Your task to perform on an android device: set the stopwatch Image 0: 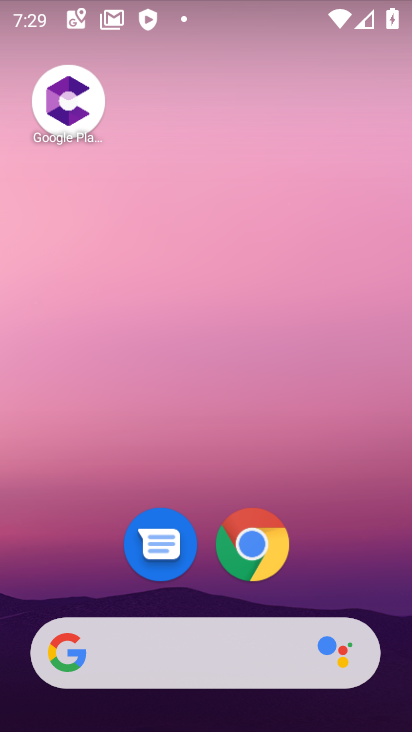
Step 0: drag from (354, 558) to (334, 5)
Your task to perform on an android device: set the stopwatch Image 1: 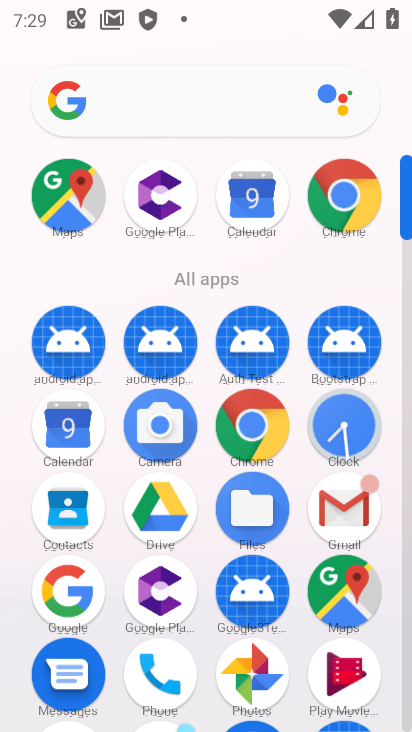
Step 1: click (335, 424)
Your task to perform on an android device: set the stopwatch Image 2: 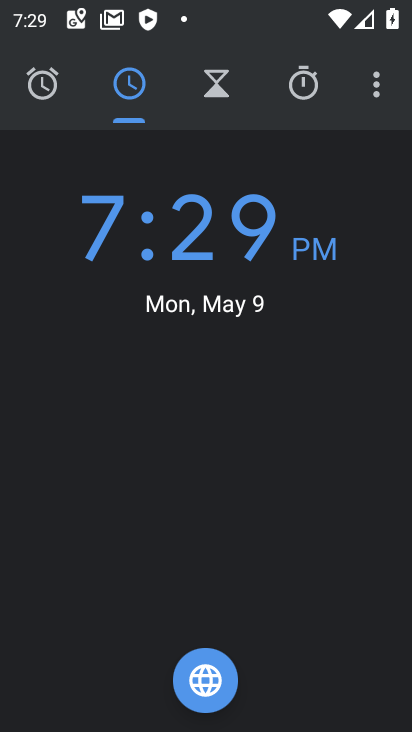
Step 2: click (312, 100)
Your task to perform on an android device: set the stopwatch Image 3: 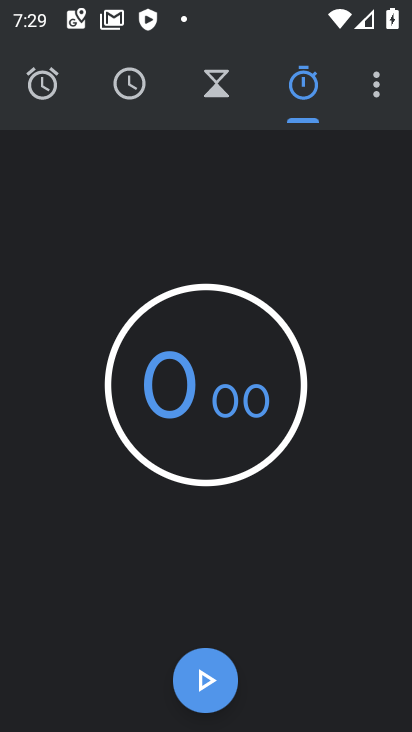
Step 3: click (200, 677)
Your task to perform on an android device: set the stopwatch Image 4: 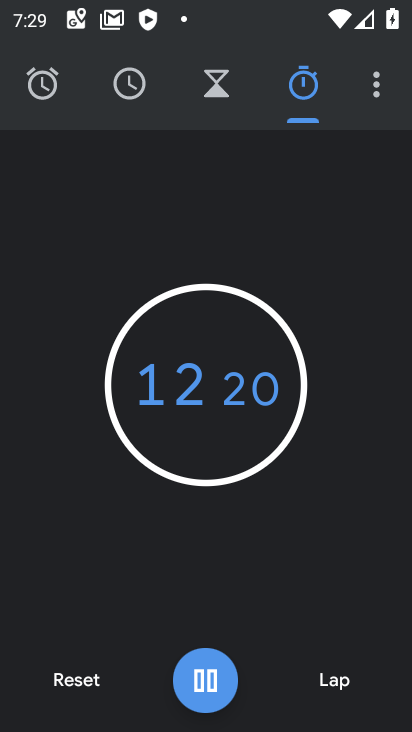
Step 4: task complete